Your task to perform on an android device: find which apps use the phone's location Image 0: 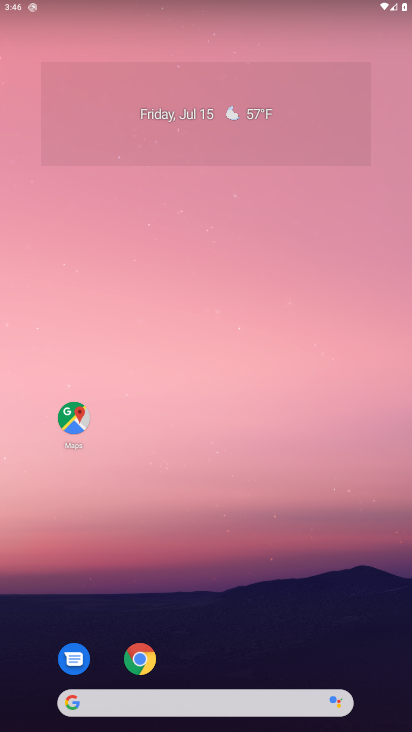
Step 0: drag from (40, 685) to (230, 209)
Your task to perform on an android device: find which apps use the phone's location Image 1: 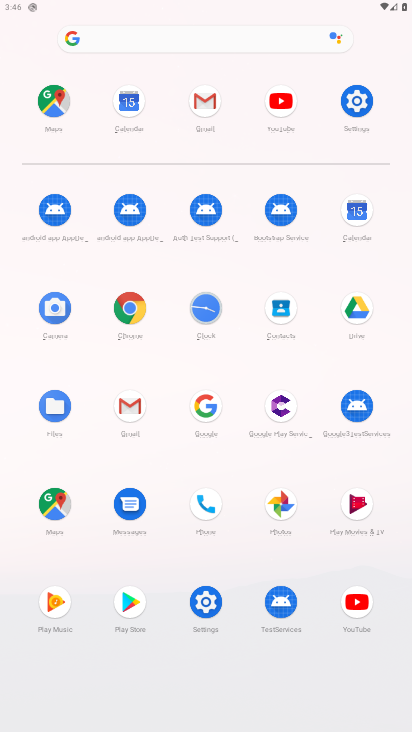
Step 1: click (201, 616)
Your task to perform on an android device: find which apps use the phone's location Image 2: 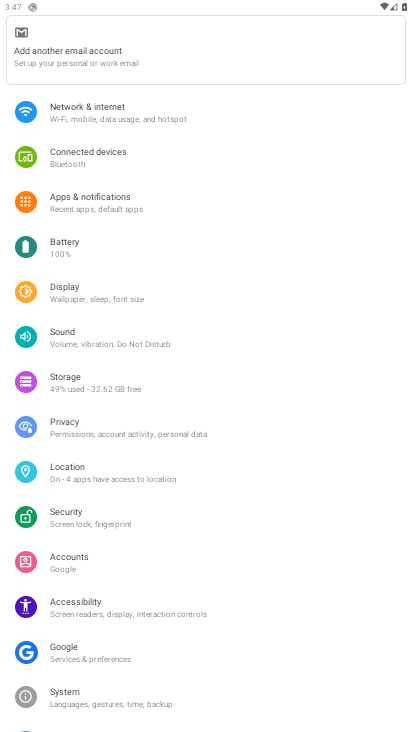
Step 2: click (100, 473)
Your task to perform on an android device: find which apps use the phone's location Image 3: 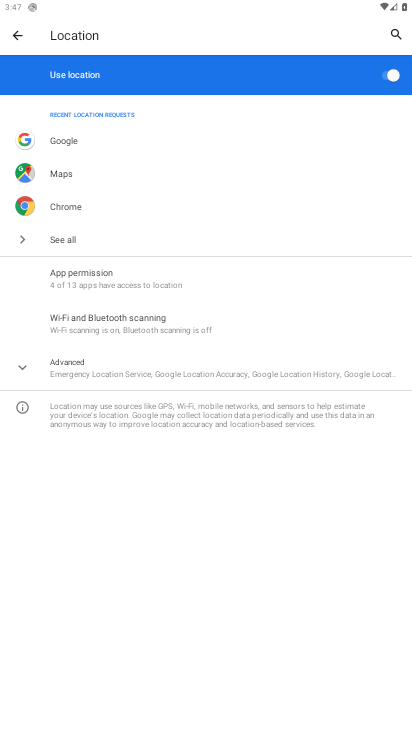
Step 3: click (77, 363)
Your task to perform on an android device: find which apps use the phone's location Image 4: 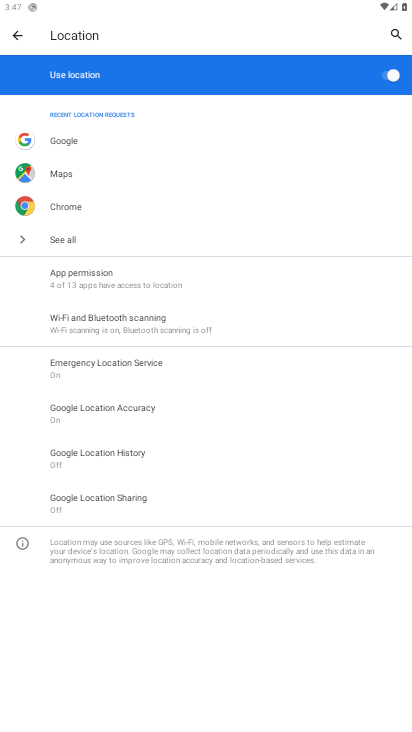
Step 4: click (91, 278)
Your task to perform on an android device: find which apps use the phone's location Image 5: 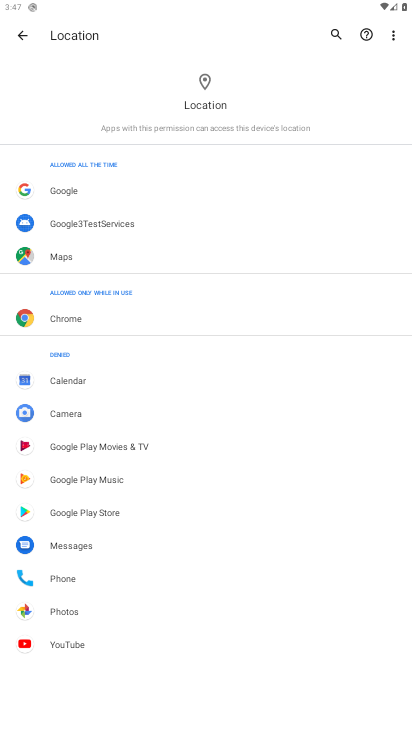
Step 5: task complete